Your task to perform on an android device: Go to wifi settings Image 0: 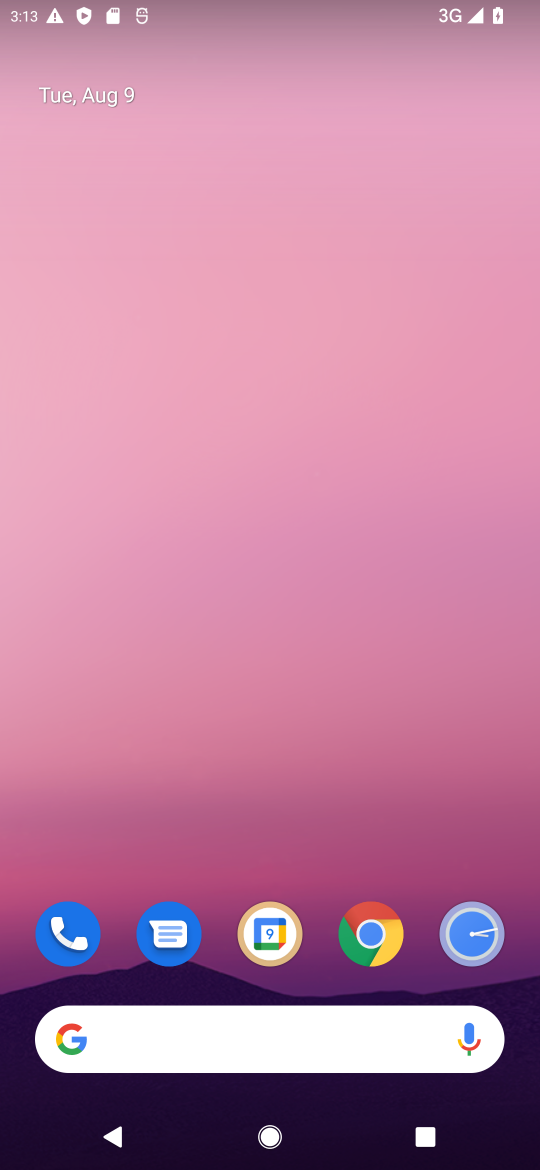
Step 0: task complete